Your task to perform on an android device: Open calendar and show me the second week of next month Image 0: 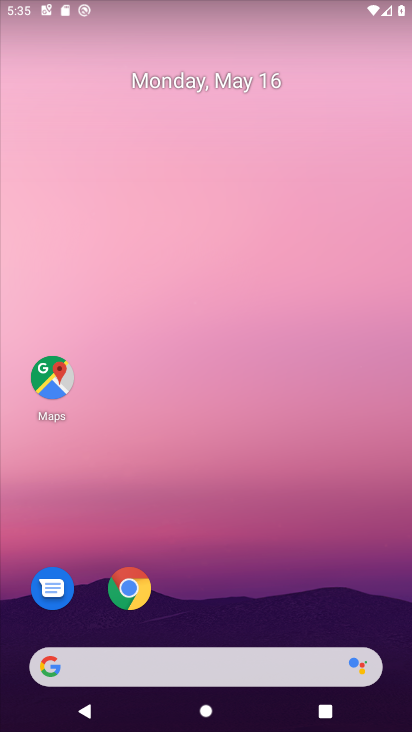
Step 0: drag from (280, 426) to (169, 42)
Your task to perform on an android device: Open calendar and show me the second week of next month Image 1: 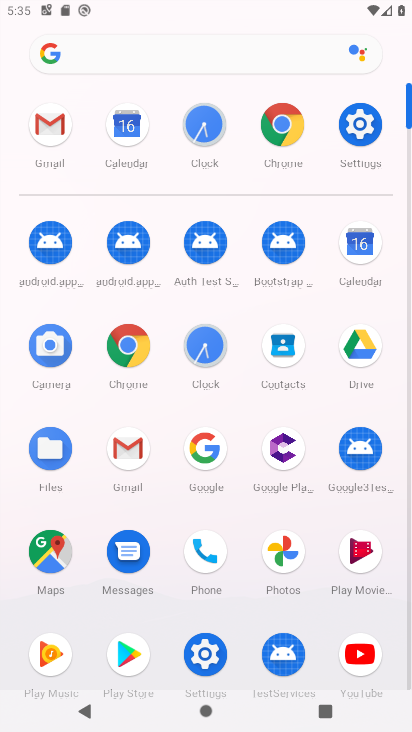
Step 1: click (367, 257)
Your task to perform on an android device: Open calendar and show me the second week of next month Image 2: 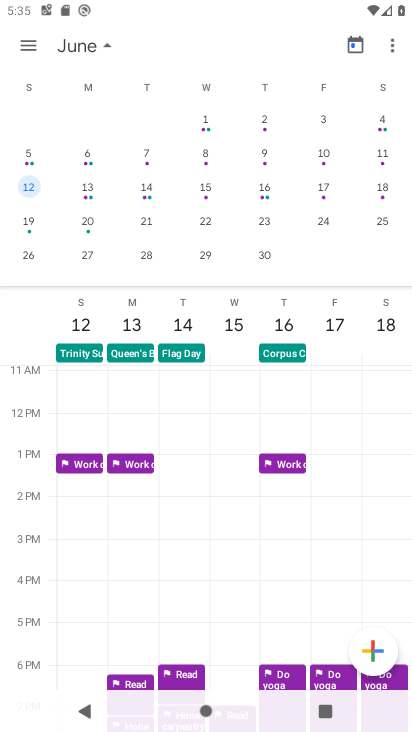
Step 2: click (35, 195)
Your task to perform on an android device: Open calendar and show me the second week of next month Image 3: 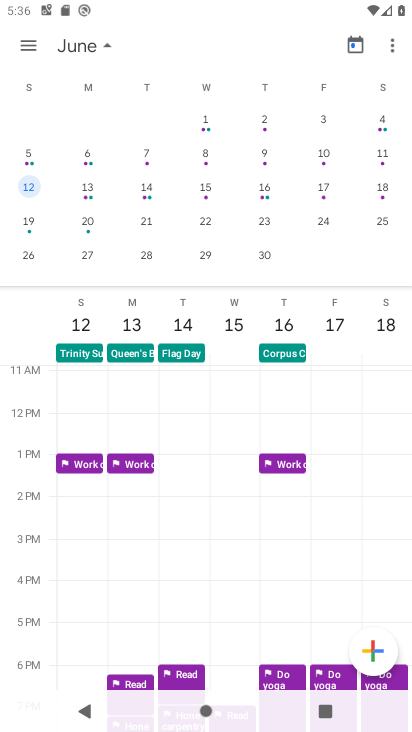
Step 3: task complete